Your task to perform on an android device: Open CNN.com Image 0: 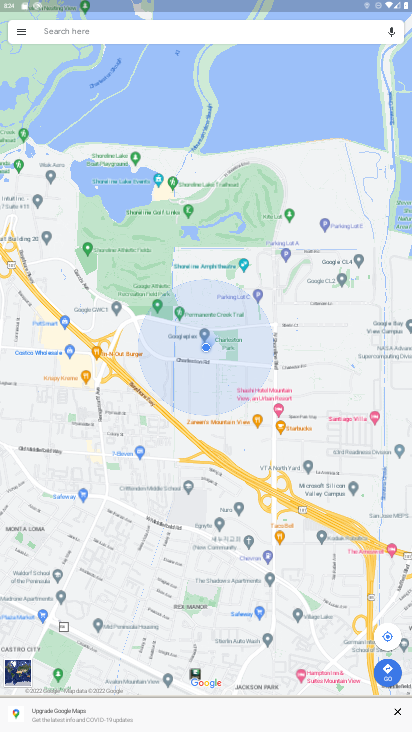
Step 0: press home button
Your task to perform on an android device: Open CNN.com Image 1: 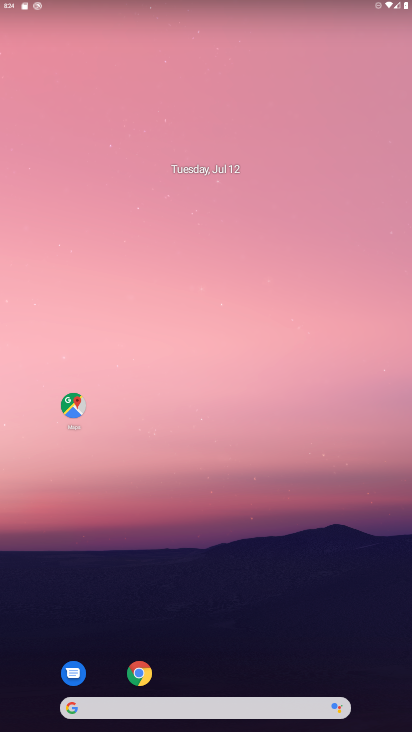
Step 1: drag from (252, 657) to (273, 55)
Your task to perform on an android device: Open CNN.com Image 2: 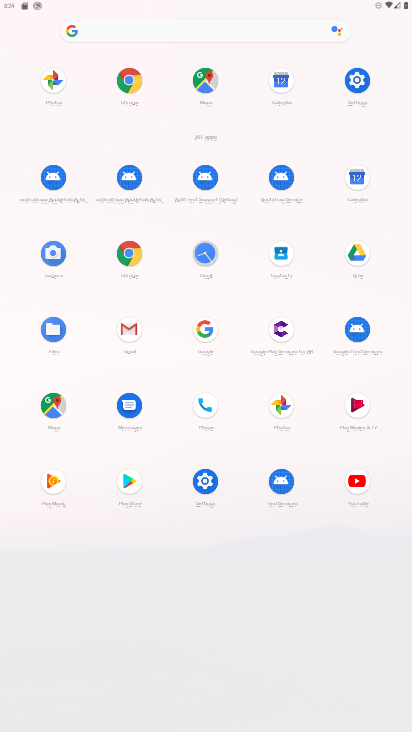
Step 2: click (130, 252)
Your task to perform on an android device: Open CNN.com Image 3: 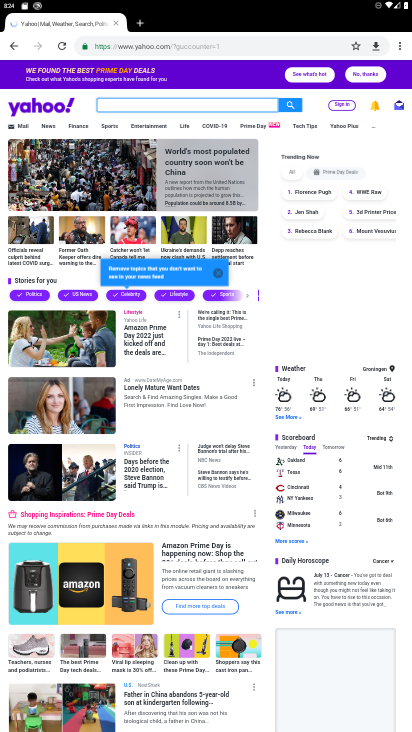
Step 3: drag from (403, 43) to (304, 45)
Your task to perform on an android device: Open CNN.com Image 4: 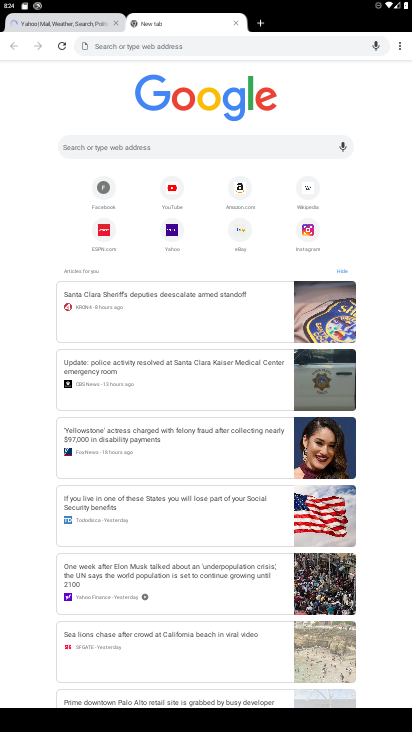
Step 4: click (206, 44)
Your task to perform on an android device: Open CNN.com Image 5: 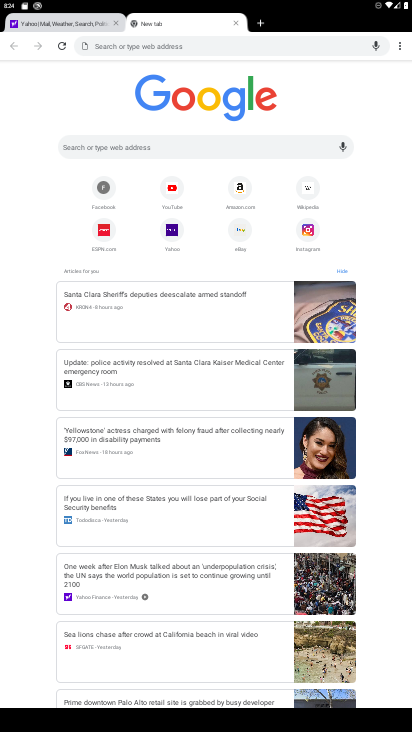
Step 5: type "cnn.com"
Your task to perform on an android device: Open CNN.com Image 6: 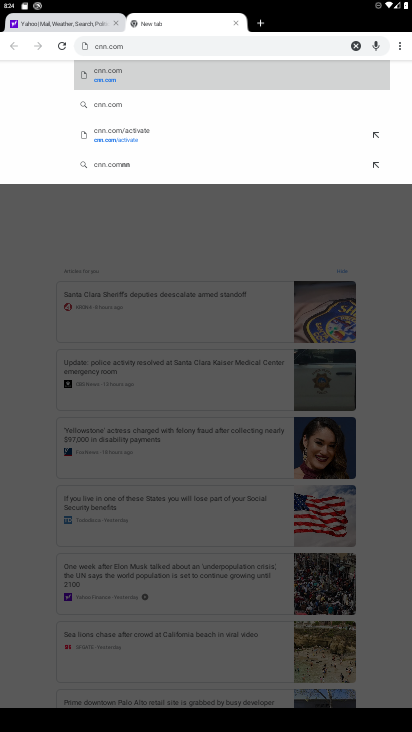
Step 6: click (113, 83)
Your task to perform on an android device: Open CNN.com Image 7: 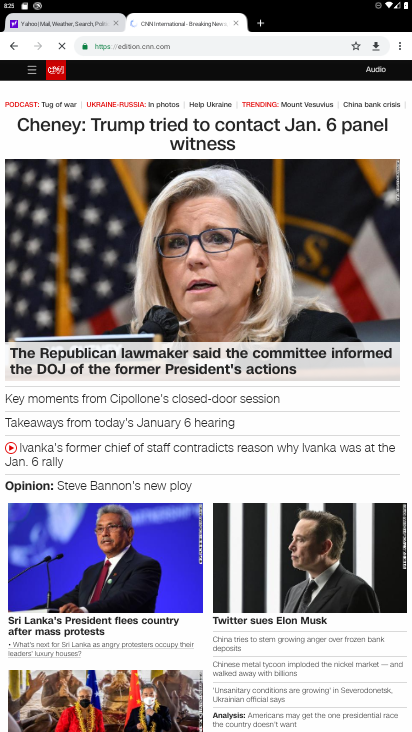
Step 7: task complete